Your task to perform on an android device: Go to Google Image 0: 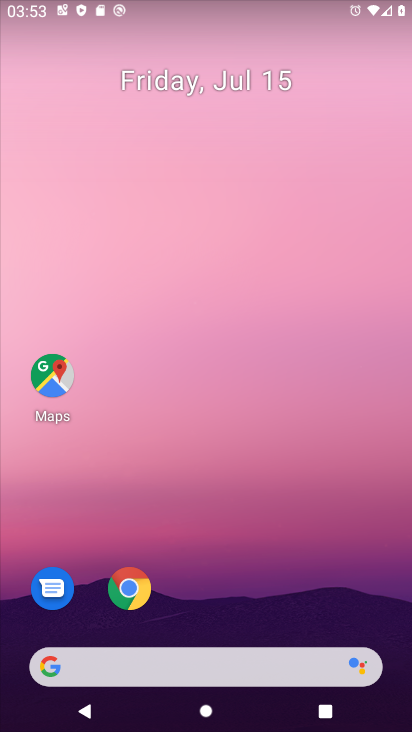
Step 0: drag from (213, 670) to (293, 212)
Your task to perform on an android device: Go to Google Image 1: 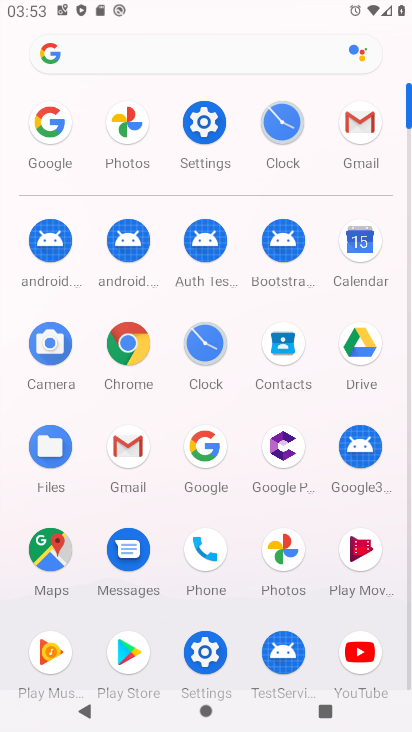
Step 1: click (202, 445)
Your task to perform on an android device: Go to Google Image 2: 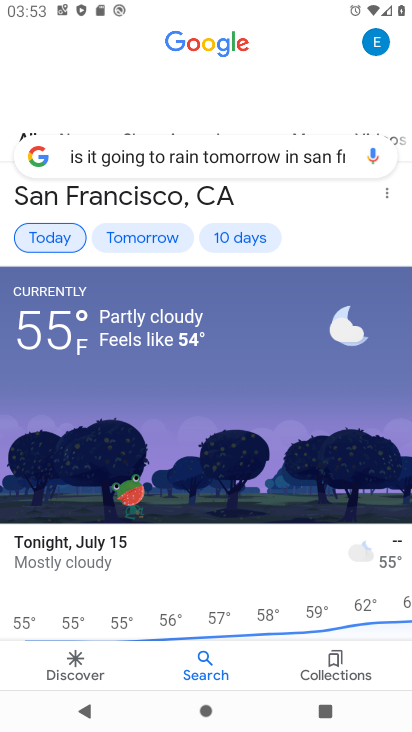
Step 2: task complete